Your task to perform on an android device: Open calendar and show me the third week of next month Image 0: 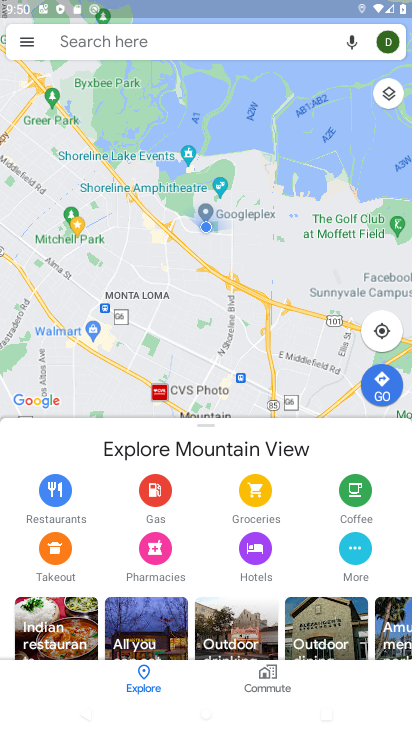
Step 0: click (110, 37)
Your task to perform on an android device: Open calendar and show me the third week of next month Image 1: 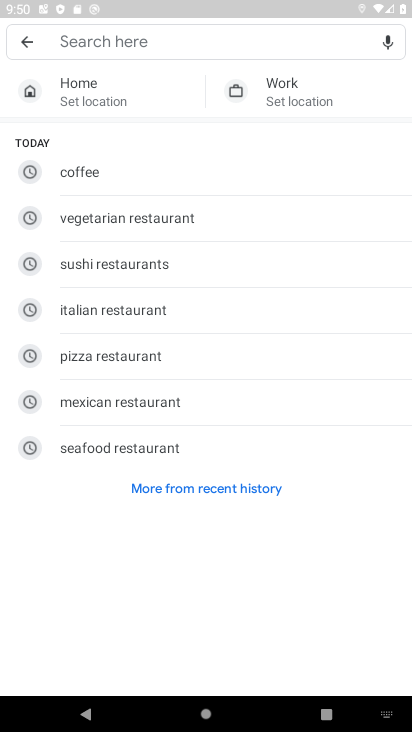
Step 1: press home button
Your task to perform on an android device: Open calendar and show me the third week of next month Image 2: 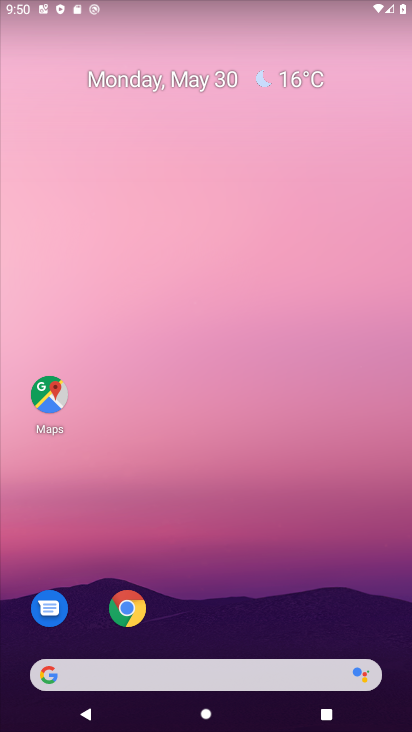
Step 2: drag from (361, 469) to (306, 50)
Your task to perform on an android device: Open calendar and show me the third week of next month Image 3: 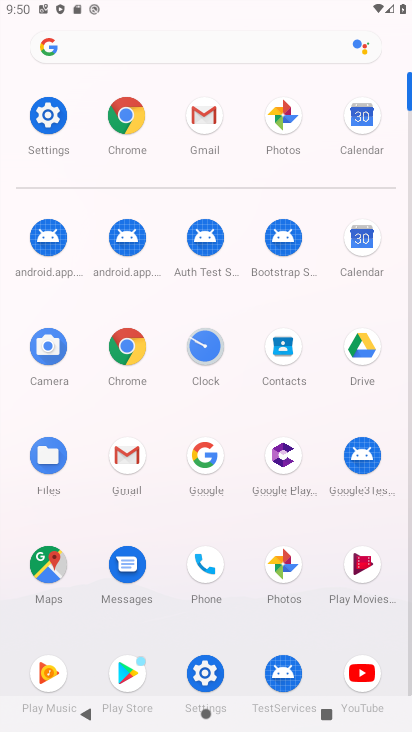
Step 3: drag from (235, 677) to (233, 284)
Your task to perform on an android device: Open calendar and show me the third week of next month Image 4: 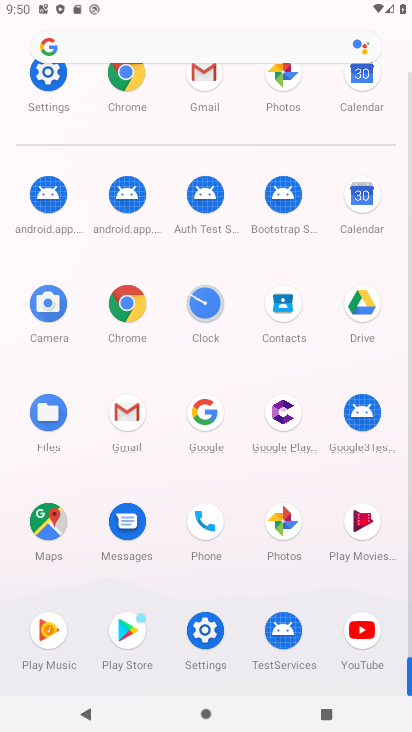
Step 4: drag from (237, 641) to (244, 313)
Your task to perform on an android device: Open calendar and show me the third week of next month Image 5: 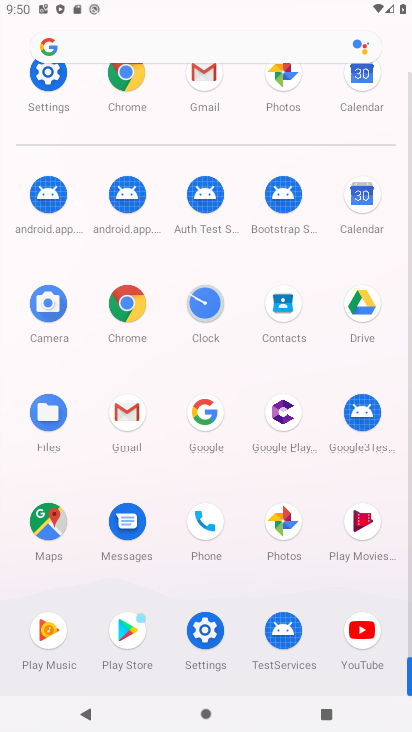
Step 5: click (351, 195)
Your task to perform on an android device: Open calendar and show me the third week of next month Image 6: 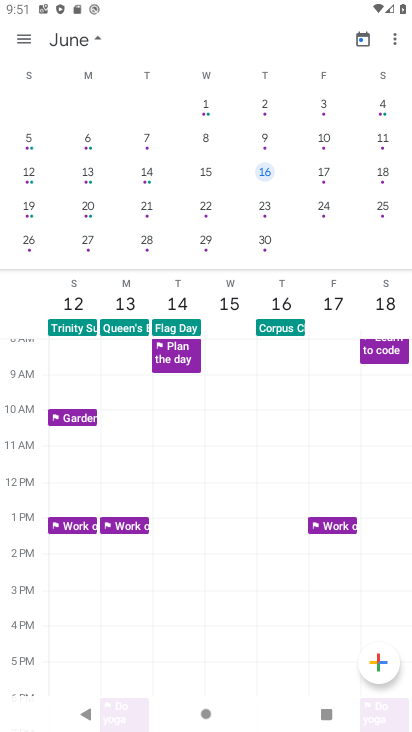
Step 6: click (327, 171)
Your task to perform on an android device: Open calendar and show me the third week of next month Image 7: 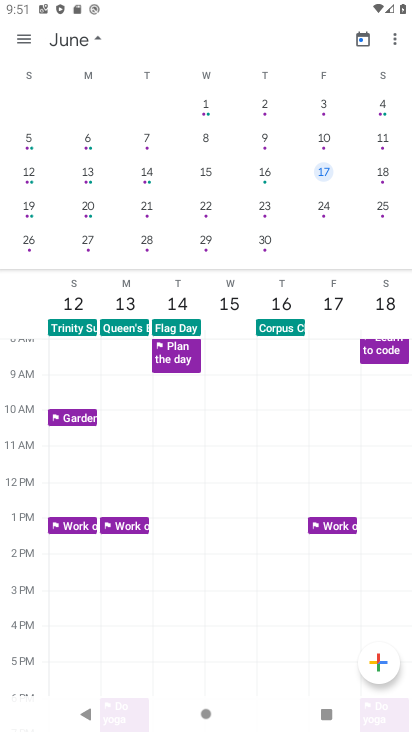
Step 7: task complete